Your task to perform on an android device: toggle data saver in the chrome app Image 0: 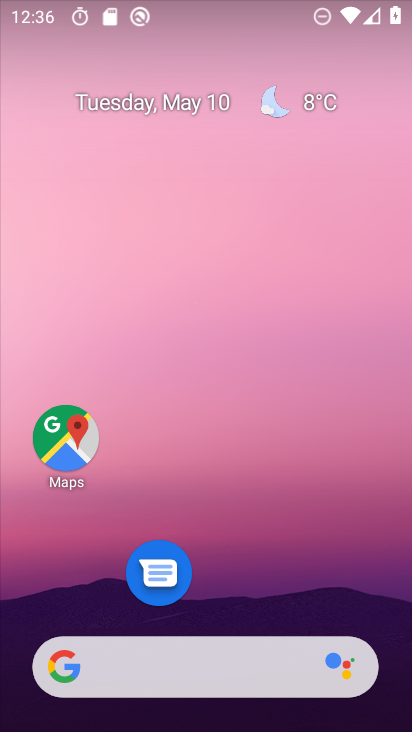
Step 0: drag from (246, 616) to (325, 11)
Your task to perform on an android device: toggle data saver in the chrome app Image 1: 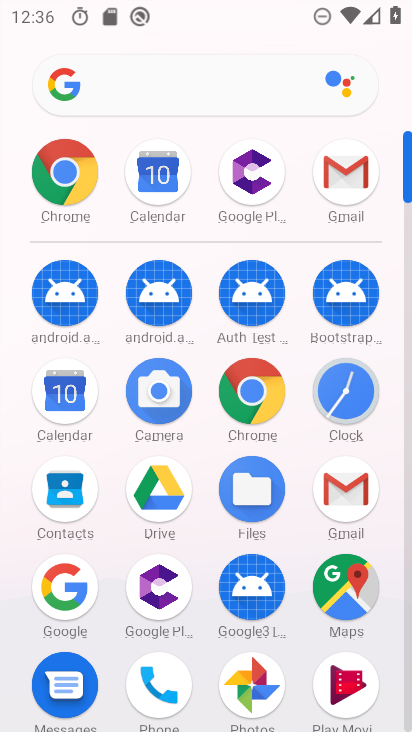
Step 1: click (263, 387)
Your task to perform on an android device: toggle data saver in the chrome app Image 2: 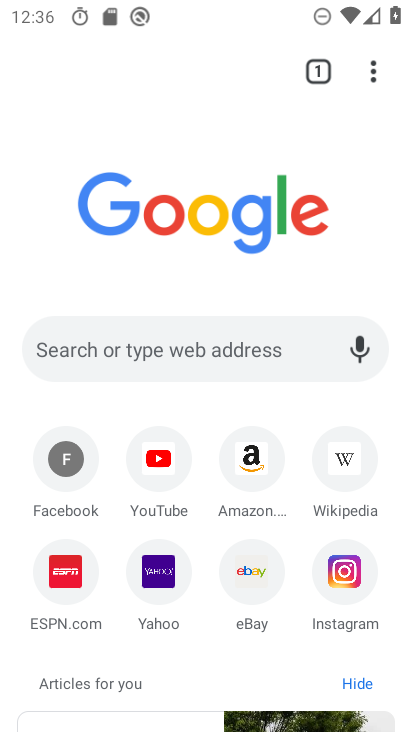
Step 2: click (380, 66)
Your task to perform on an android device: toggle data saver in the chrome app Image 3: 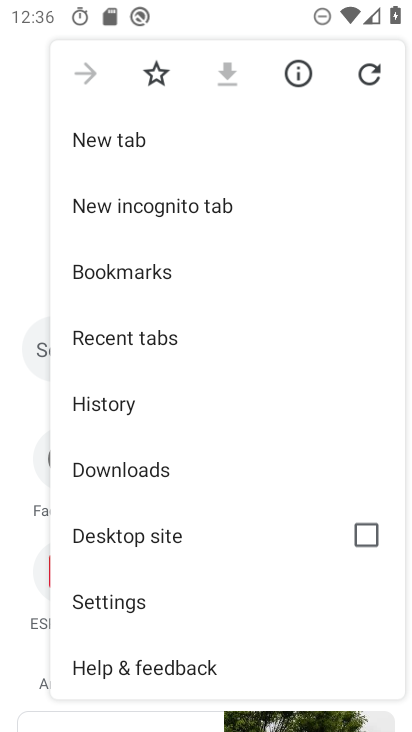
Step 3: click (107, 599)
Your task to perform on an android device: toggle data saver in the chrome app Image 4: 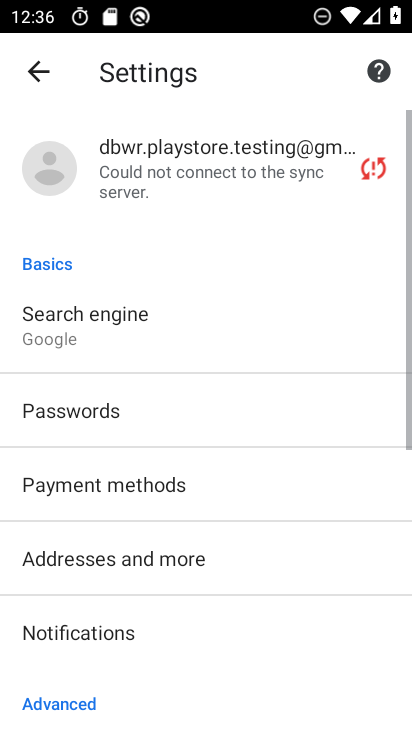
Step 4: drag from (139, 607) to (211, 197)
Your task to perform on an android device: toggle data saver in the chrome app Image 5: 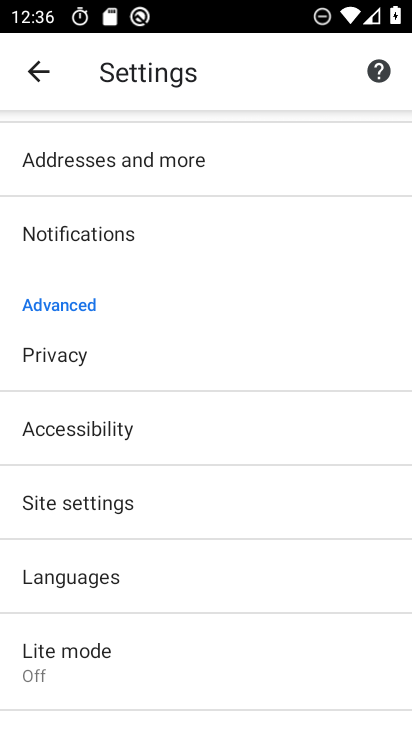
Step 5: click (86, 648)
Your task to perform on an android device: toggle data saver in the chrome app Image 6: 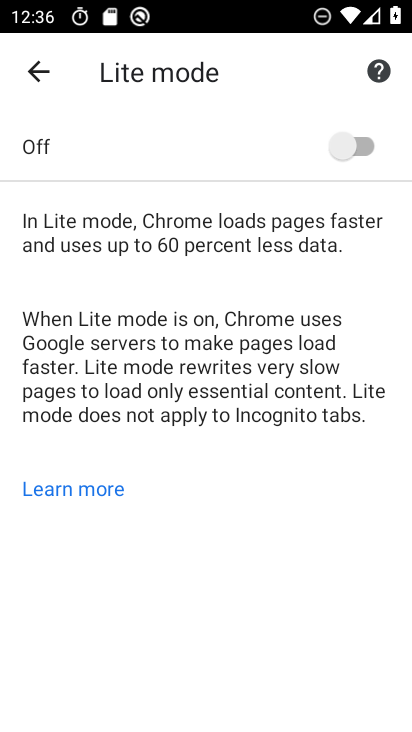
Step 6: click (364, 134)
Your task to perform on an android device: toggle data saver in the chrome app Image 7: 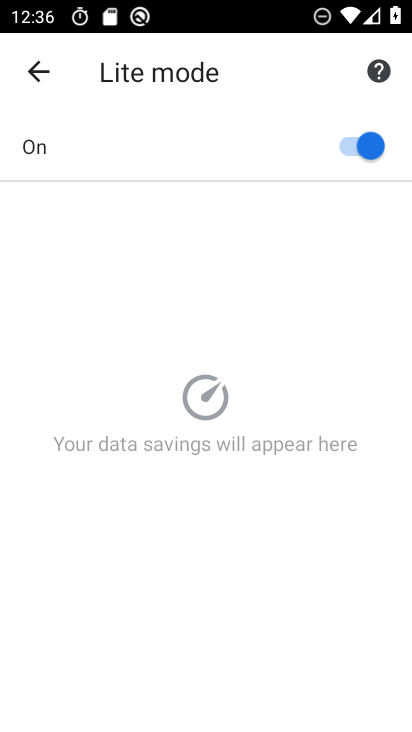
Step 7: task complete